Your task to perform on an android device: refresh tabs in the chrome app Image 0: 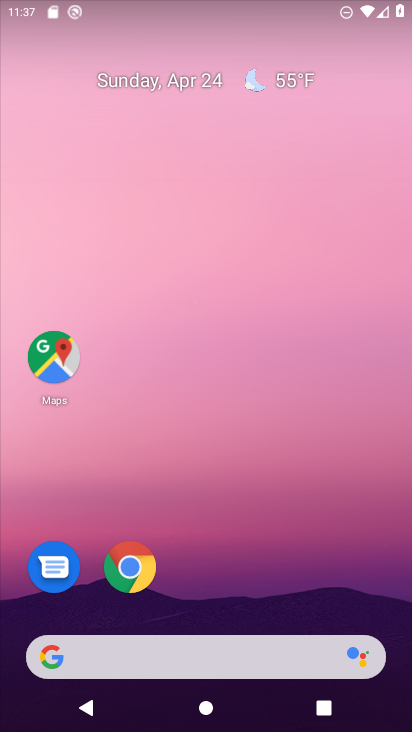
Step 0: click (125, 561)
Your task to perform on an android device: refresh tabs in the chrome app Image 1: 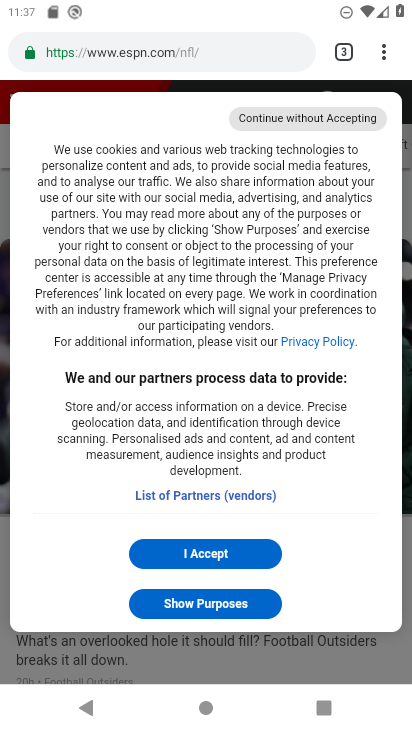
Step 1: click (205, 545)
Your task to perform on an android device: refresh tabs in the chrome app Image 2: 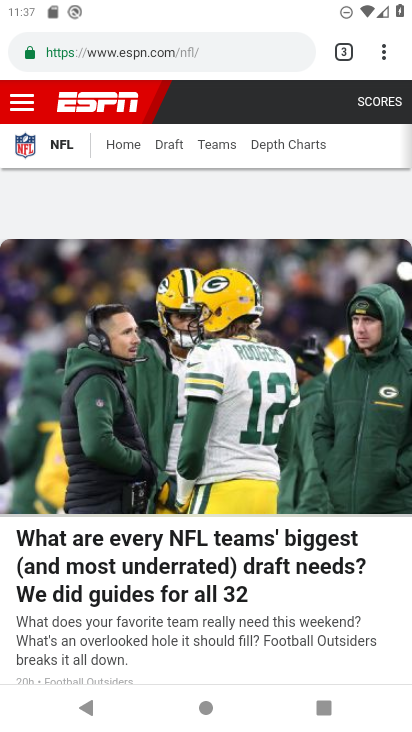
Step 2: click (379, 47)
Your task to perform on an android device: refresh tabs in the chrome app Image 3: 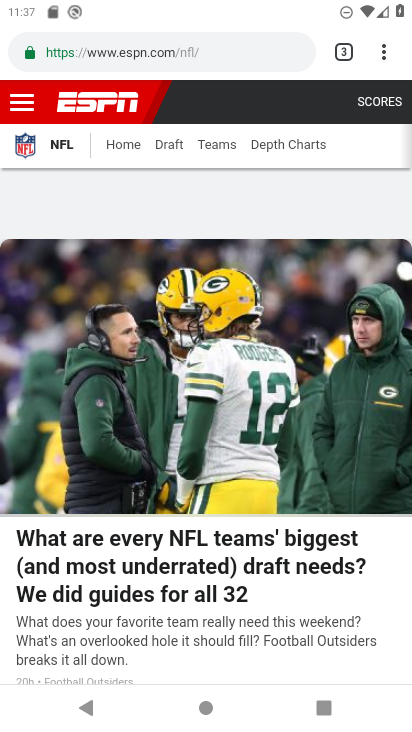
Step 3: click (379, 47)
Your task to perform on an android device: refresh tabs in the chrome app Image 4: 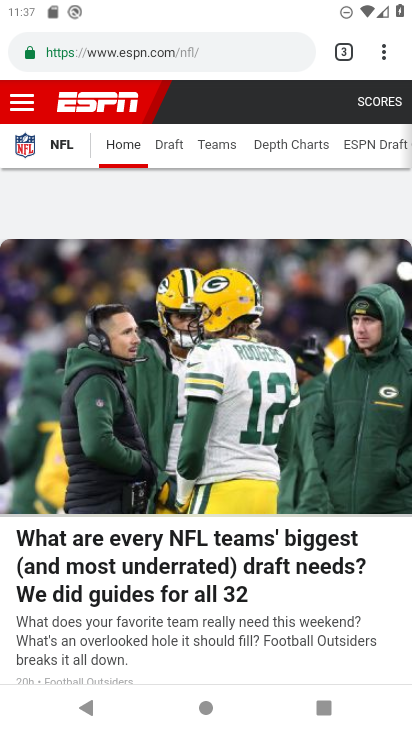
Step 4: click (379, 47)
Your task to perform on an android device: refresh tabs in the chrome app Image 5: 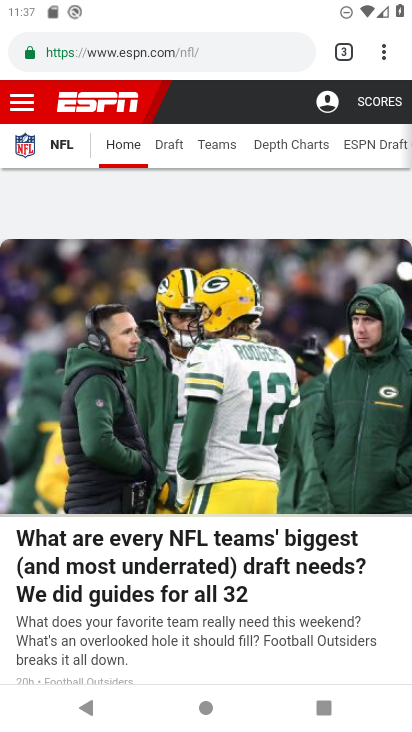
Step 5: click (379, 47)
Your task to perform on an android device: refresh tabs in the chrome app Image 6: 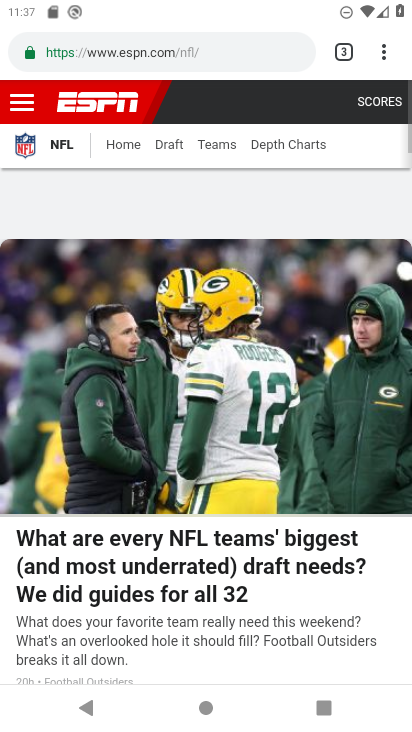
Step 6: click (382, 47)
Your task to perform on an android device: refresh tabs in the chrome app Image 7: 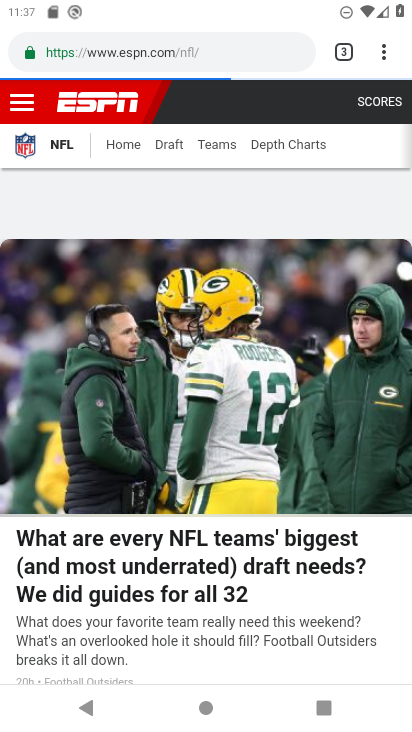
Step 7: click (382, 46)
Your task to perform on an android device: refresh tabs in the chrome app Image 8: 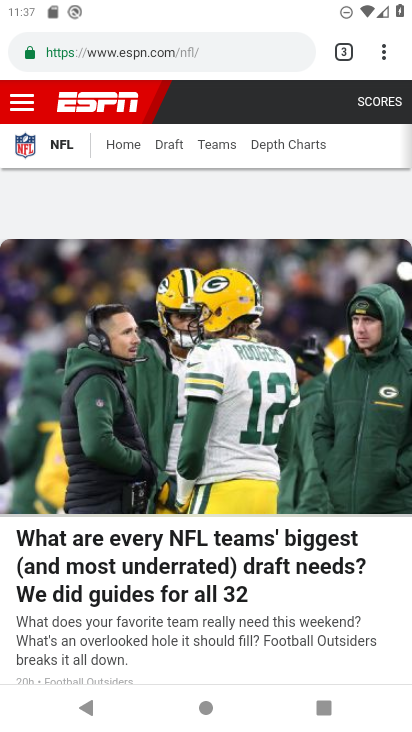
Step 8: click (382, 46)
Your task to perform on an android device: refresh tabs in the chrome app Image 9: 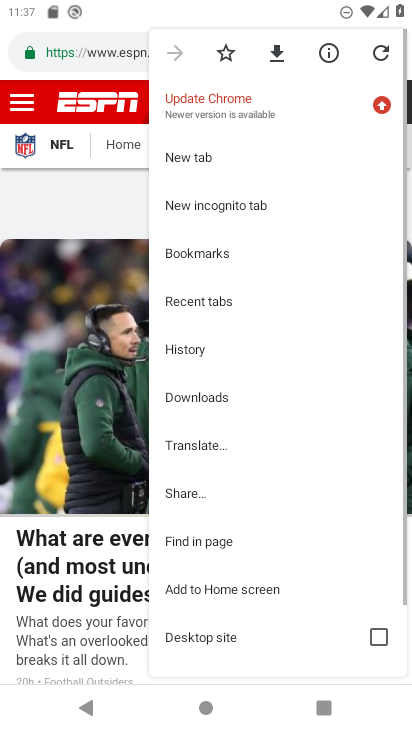
Step 9: click (382, 46)
Your task to perform on an android device: refresh tabs in the chrome app Image 10: 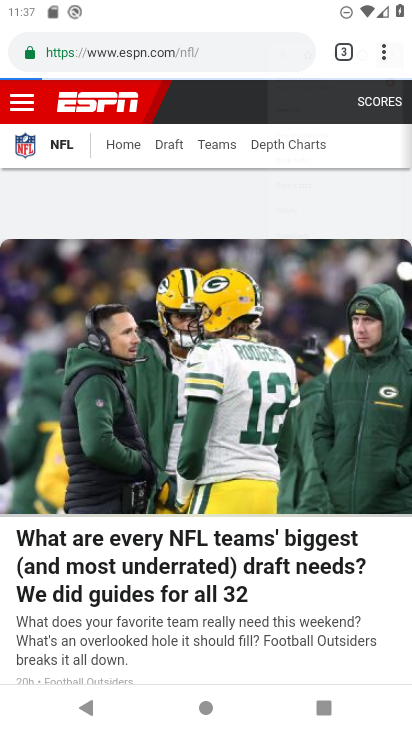
Step 10: click (382, 46)
Your task to perform on an android device: refresh tabs in the chrome app Image 11: 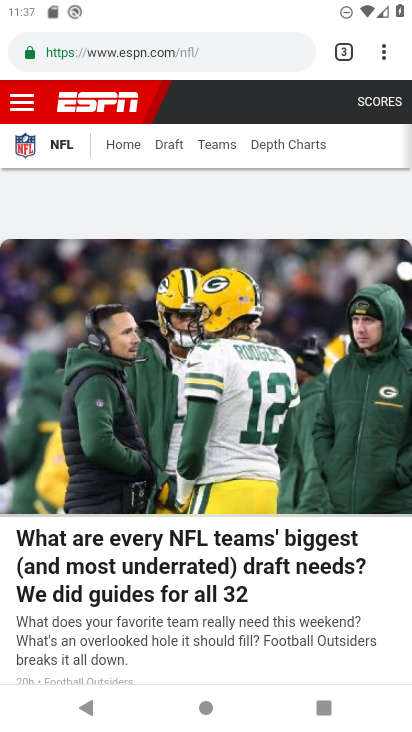
Step 11: task complete